Your task to perform on an android device: open app "Yahoo Mail" (install if not already installed), go to login, and select forgot password Image 0: 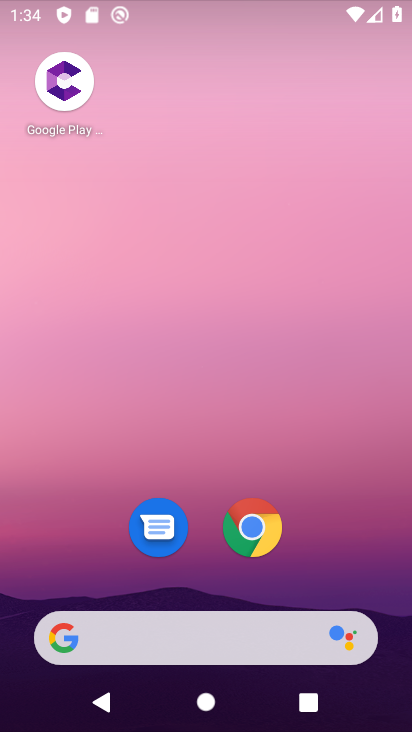
Step 0: drag from (216, 612) to (178, 26)
Your task to perform on an android device: open app "Yahoo Mail" (install if not already installed), go to login, and select forgot password Image 1: 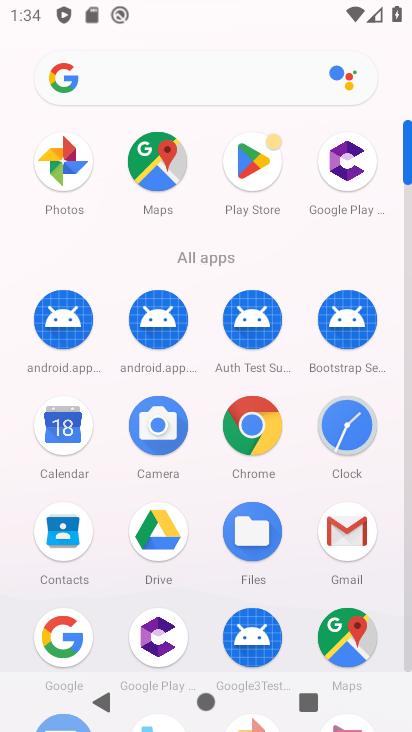
Step 1: click (240, 165)
Your task to perform on an android device: open app "Yahoo Mail" (install if not already installed), go to login, and select forgot password Image 2: 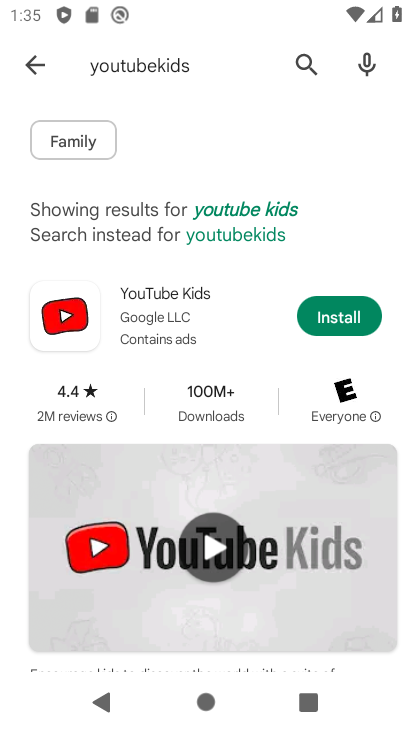
Step 2: click (305, 65)
Your task to perform on an android device: open app "Yahoo Mail" (install if not already installed), go to login, and select forgot password Image 3: 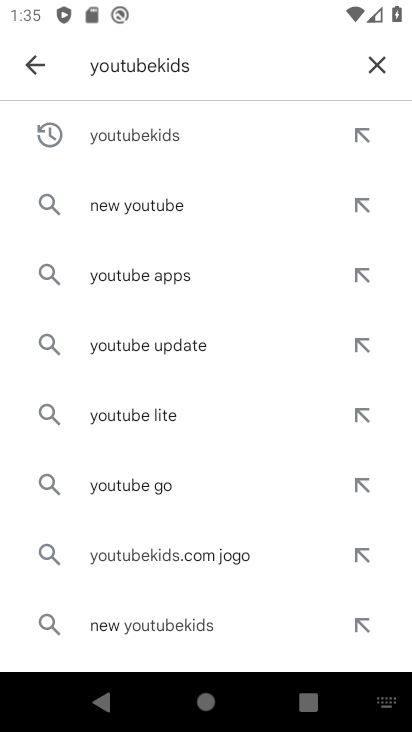
Step 3: click (375, 52)
Your task to perform on an android device: open app "Yahoo Mail" (install if not already installed), go to login, and select forgot password Image 4: 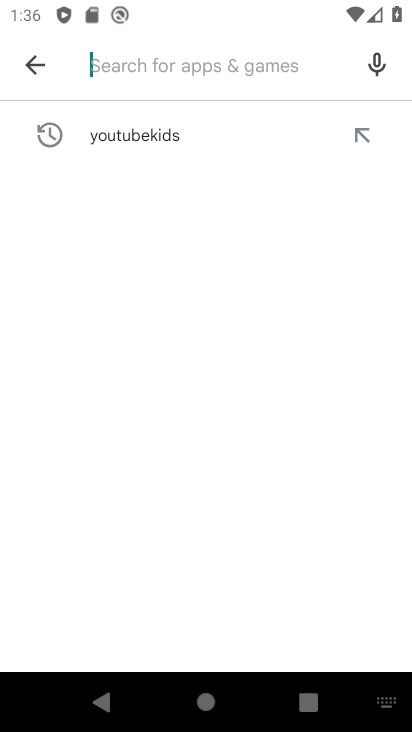
Step 4: type "yahoo mail"
Your task to perform on an android device: open app "Yahoo Mail" (install if not already installed), go to login, and select forgot password Image 5: 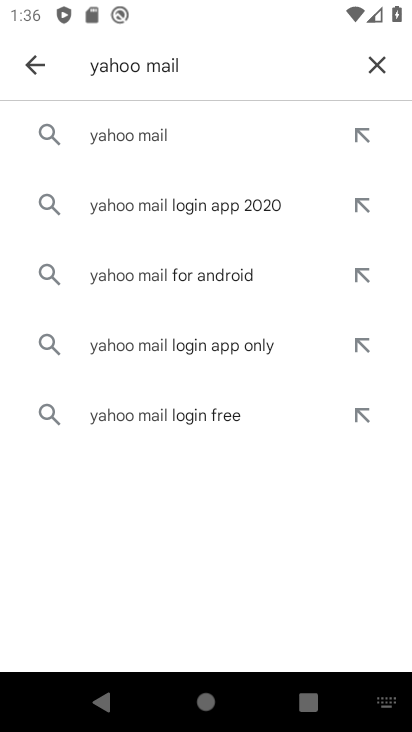
Step 5: click (195, 133)
Your task to perform on an android device: open app "Yahoo Mail" (install if not already installed), go to login, and select forgot password Image 6: 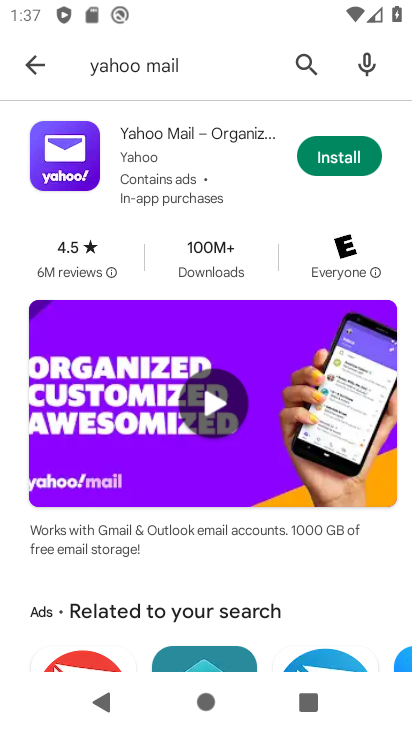
Step 6: click (334, 169)
Your task to perform on an android device: open app "Yahoo Mail" (install if not already installed), go to login, and select forgot password Image 7: 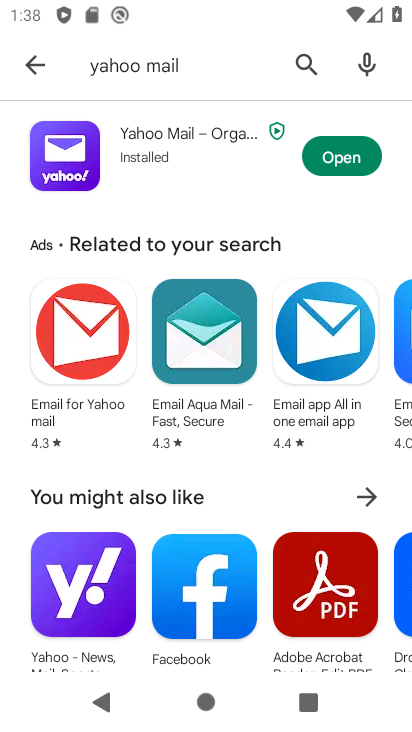
Step 7: click (338, 166)
Your task to perform on an android device: open app "Yahoo Mail" (install if not already installed), go to login, and select forgot password Image 8: 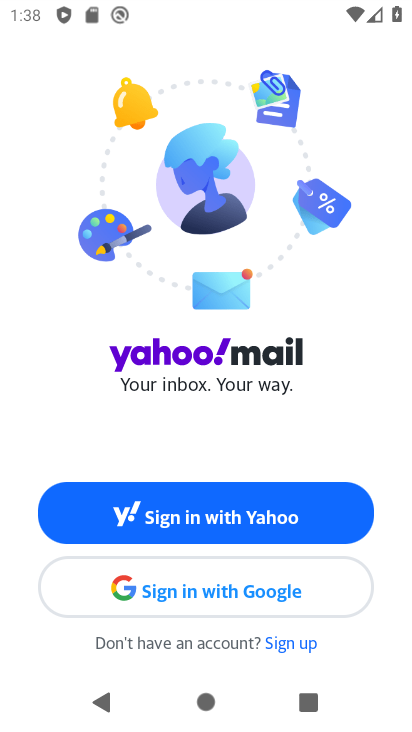
Step 8: click (163, 536)
Your task to perform on an android device: open app "Yahoo Mail" (install if not already installed), go to login, and select forgot password Image 9: 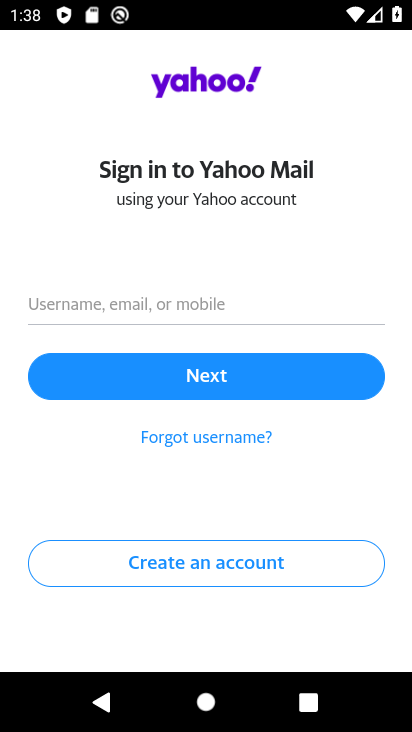
Step 9: task complete